Your task to perform on an android device: Open Google Maps Image 0: 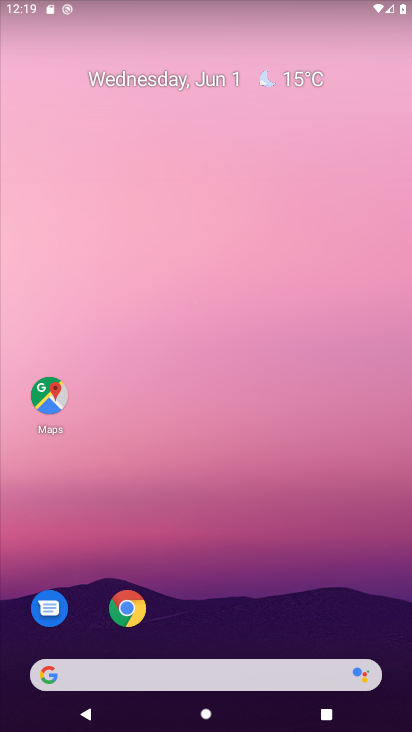
Step 0: click (53, 397)
Your task to perform on an android device: Open Google Maps Image 1: 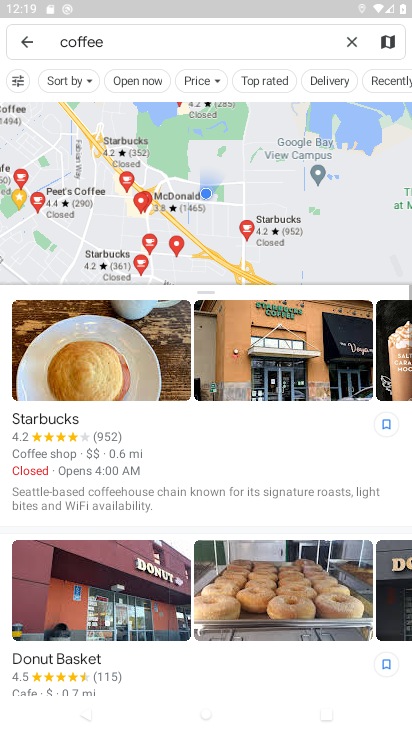
Step 1: click (26, 41)
Your task to perform on an android device: Open Google Maps Image 2: 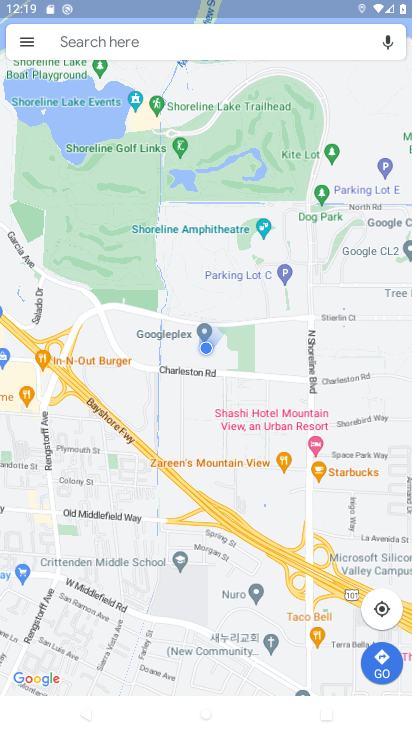
Step 2: task complete